Your task to perform on an android device: Open accessibility settings Image 0: 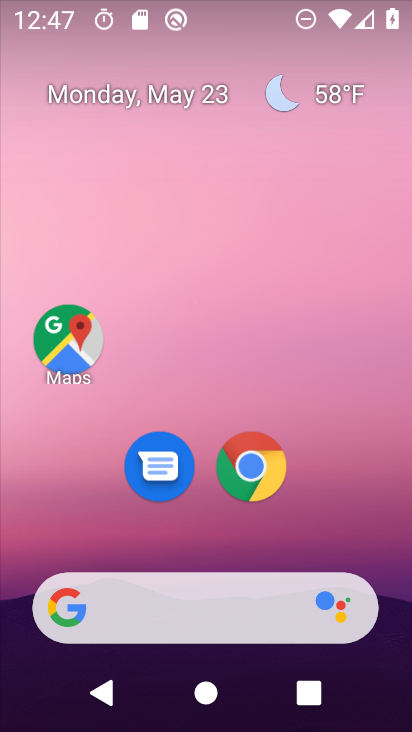
Step 0: drag from (220, 555) to (190, 83)
Your task to perform on an android device: Open accessibility settings Image 1: 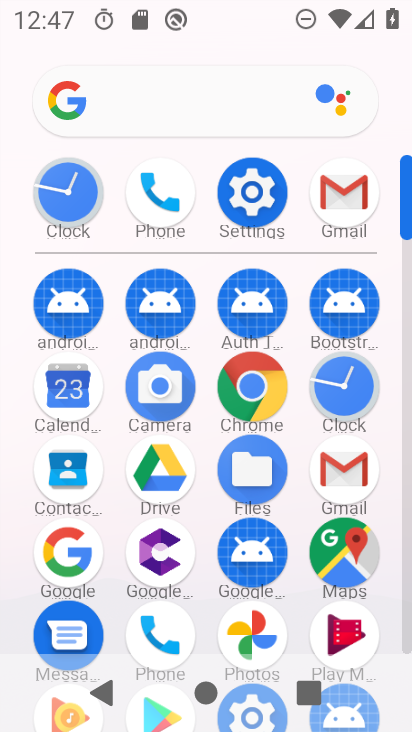
Step 1: click (260, 190)
Your task to perform on an android device: Open accessibility settings Image 2: 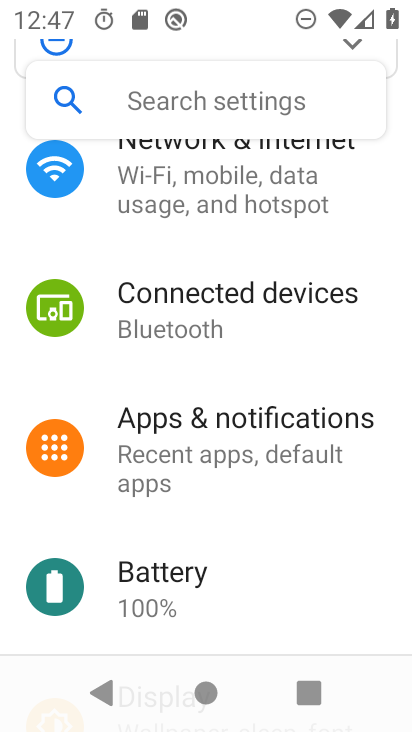
Step 2: drag from (227, 552) to (305, 57)
Your task to perform on an android device: Open accessibility settings Image 3: 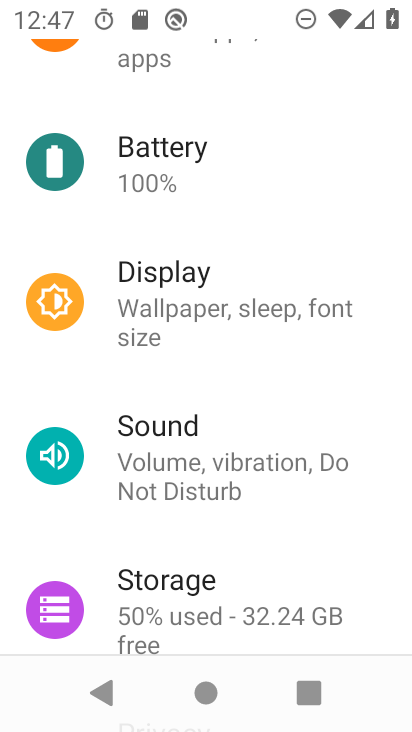
Step 3: drag from (209, 565) to (247, 138)
Your task to perform on an android device: Open accessibility settings Image 4: 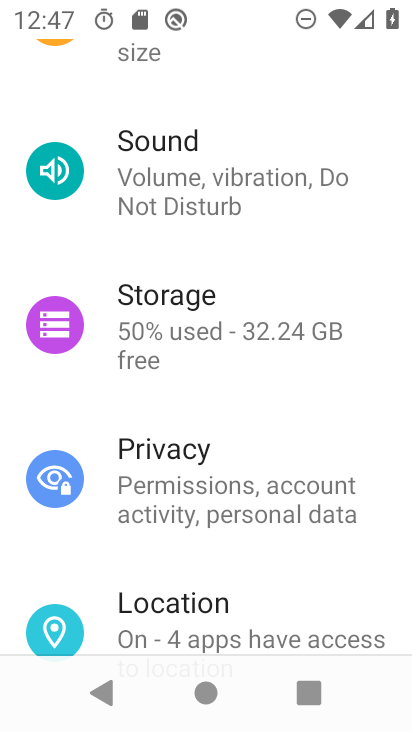
Step 4: drag from (194, 571) to (247, 68)
Your task to perform on an android device: Open accessibility settings Image 5: 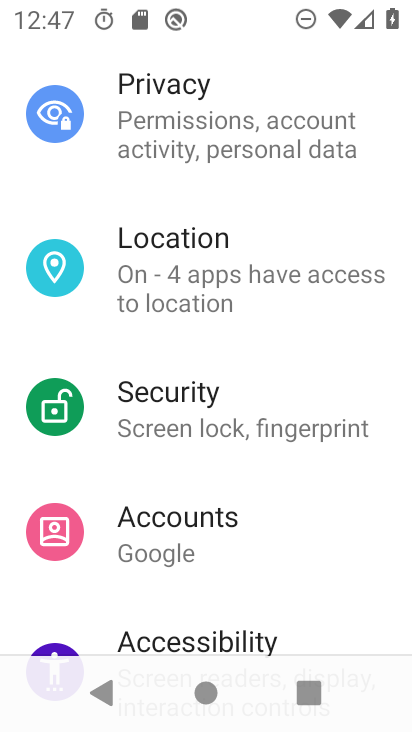
Step 5: click (186, 634)
Your task to perform on an android device: Open accessibility settings Image 6: 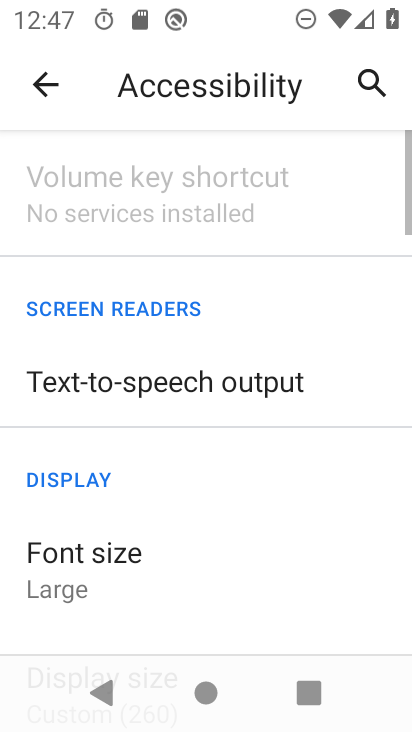
Step 6: task complete